Your task to perform on an android device: Open my contact list Image 0: 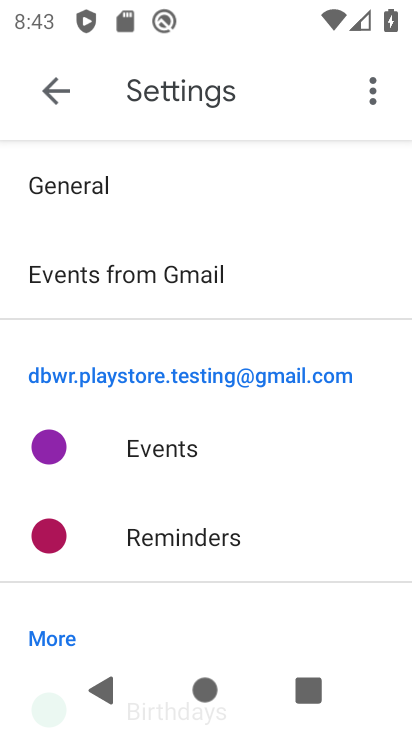
Step 0: press home button
Your task to perform on an android device: Open my contact list Image 1: 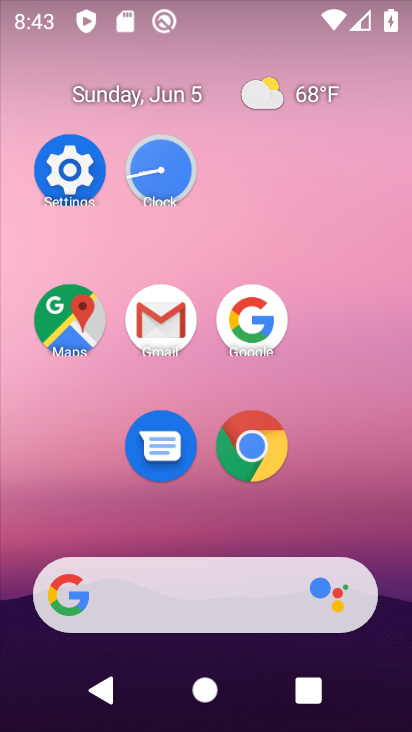
Step 1: drag from (291, 528) to (389, 274)
Your task to perform on an android device: Open my contact list Image 2: 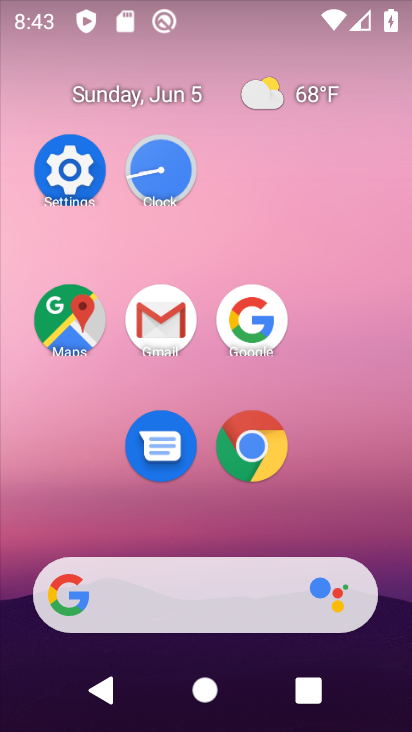
Step 2: drag from (337, 509) to (341, 185)
Your task to perform on an android device: Open my contact list Image 3: 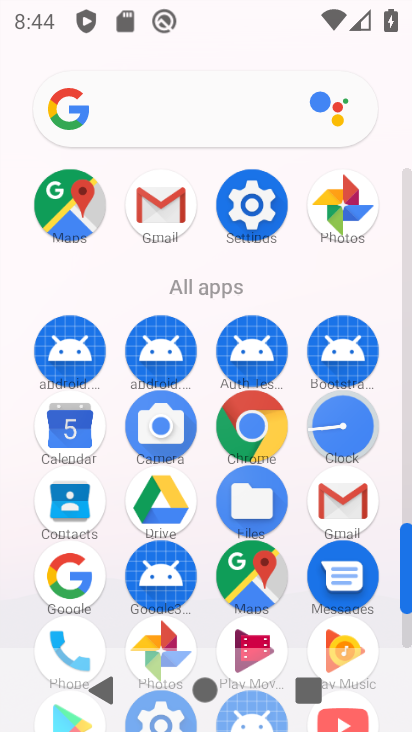
Step 3: click (75, 505)
Your task to perform on an android device: Open my contact list Image 4: 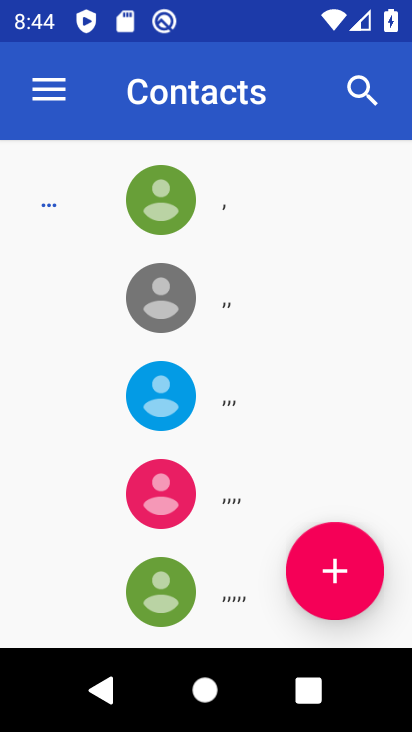
Step 4: task complete